Your task to perform on an android device: Open Reddit.com Image 0: 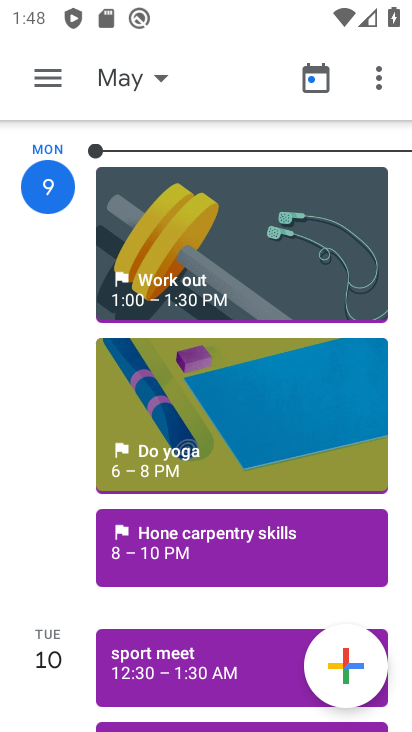
Step 0: press home button
Your task to perform on an android device: Open Reddit.com Image 1: 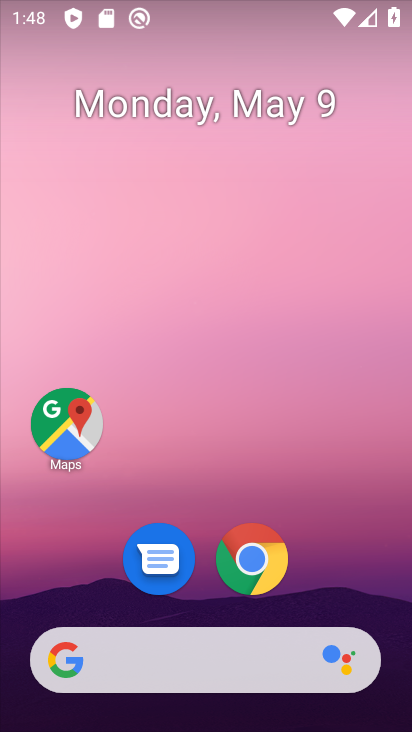
Step 1: drag from (334, 566) to (372, 214)
Your task to perform on an android device: Open Reddit.com Image 2: 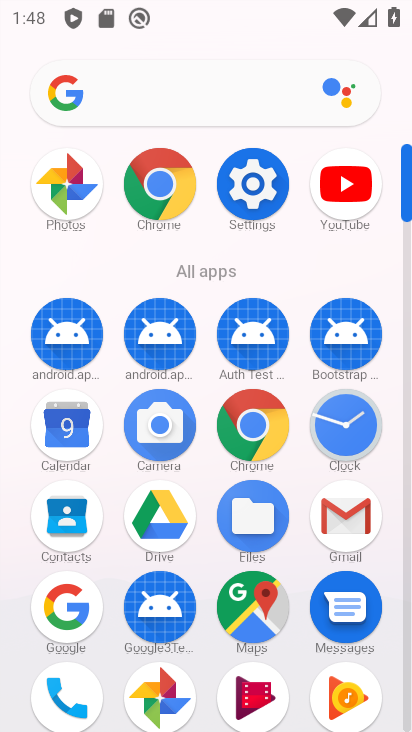
Step 2: drag from (306, 649) to (317, 347)
Your task to perform on an android device: Open Reddit.com Image 3: 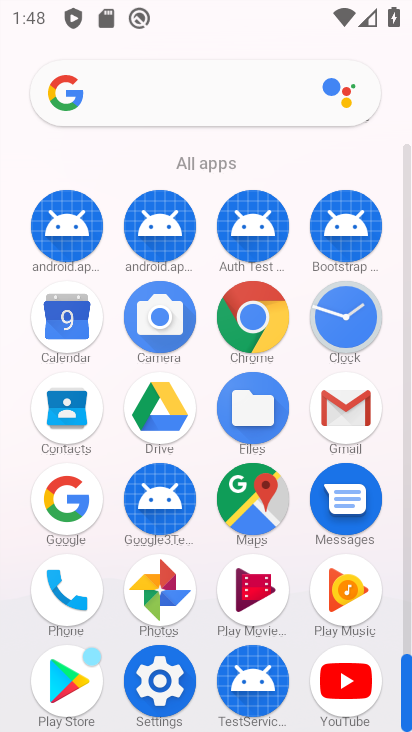
Step 3: click (246, 350)
Your task to perform on an android device: Open Reddit.com Image 4: 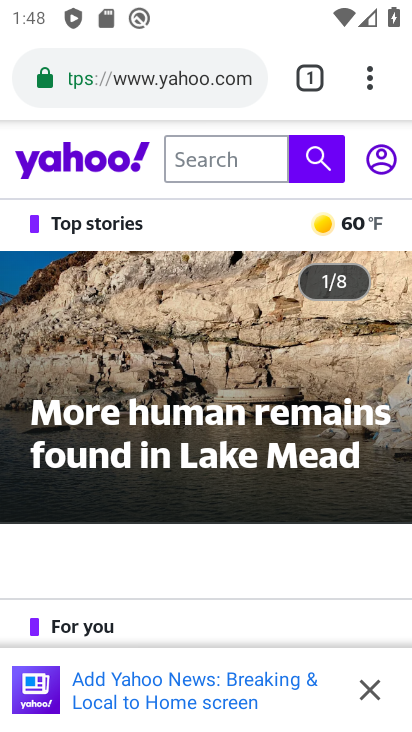
Step 4: click (216, 88)
Your task to perform on an android device: Open Reddit.com Image 5: 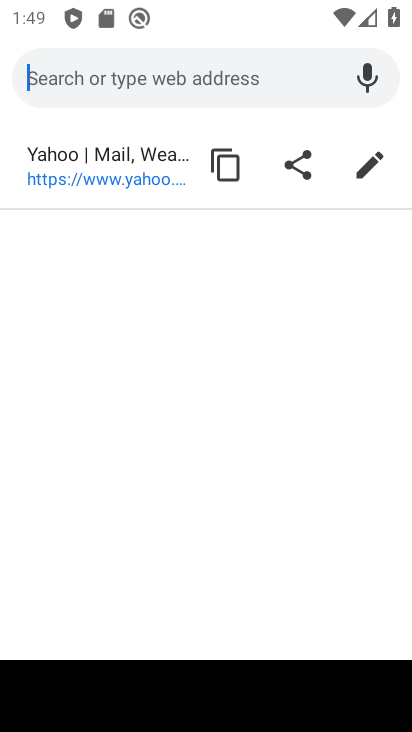
Step 5: type "reddit .com"
Your task to perform on an android device: Open Reddit.com Image 6: 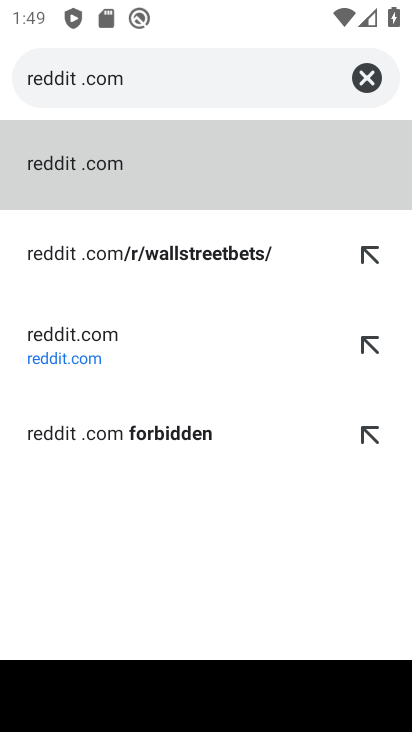
Step 6: click (31, 155)
Your task to perform on an android device: Open Reddit.com Image 7: 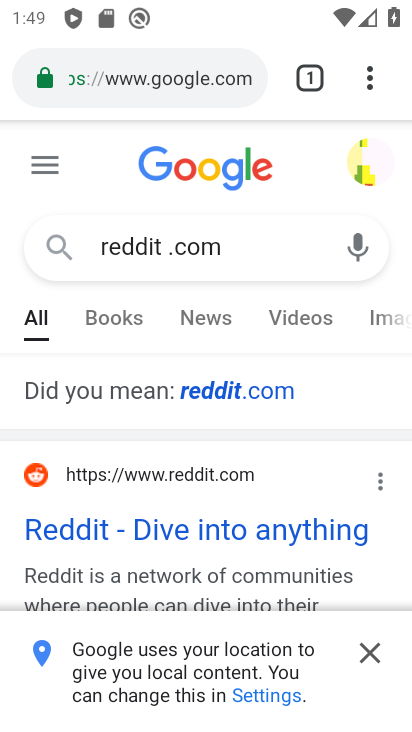
Step 7: click (129, 538)
Your task to perform on an android device: Open Reddit.com Image 8: 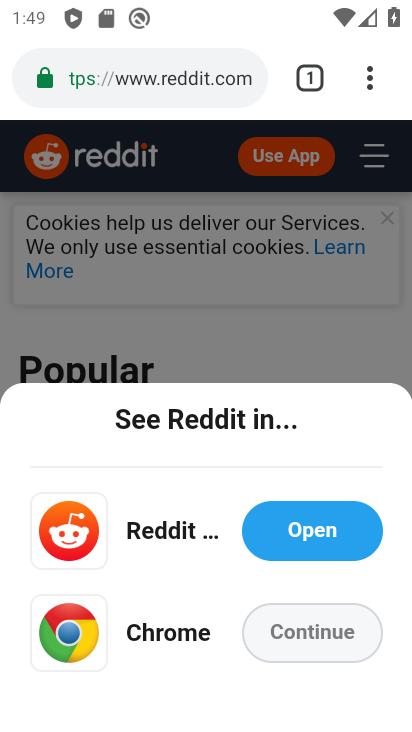
Step 8: task complete